Your task to perform on an android device: Clear the cart on target. Add asus rog to the cart on target Image 0: 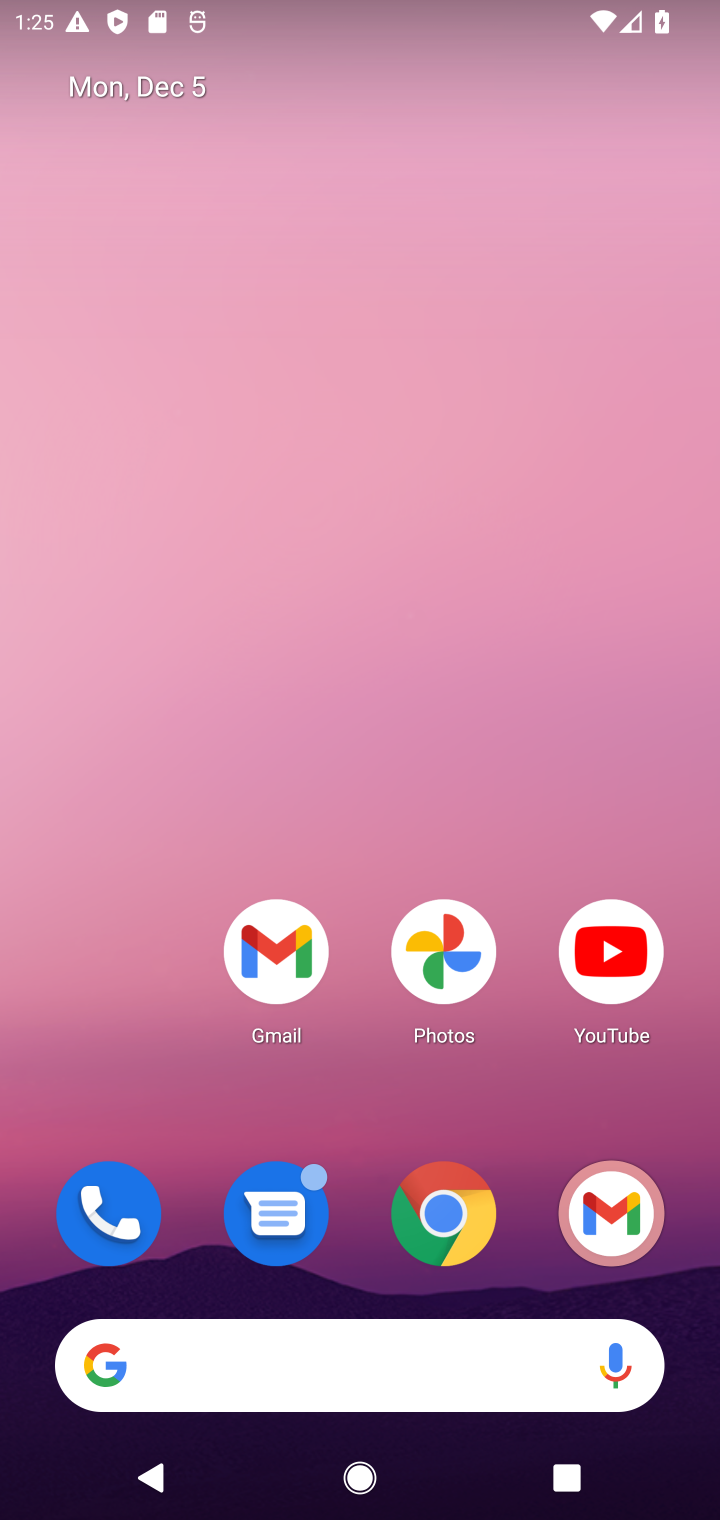
Step 0: click (479, 1234)
Your task to perform on an android device: Clear the cart on target. Add asus rog to the cart on target Image 1: 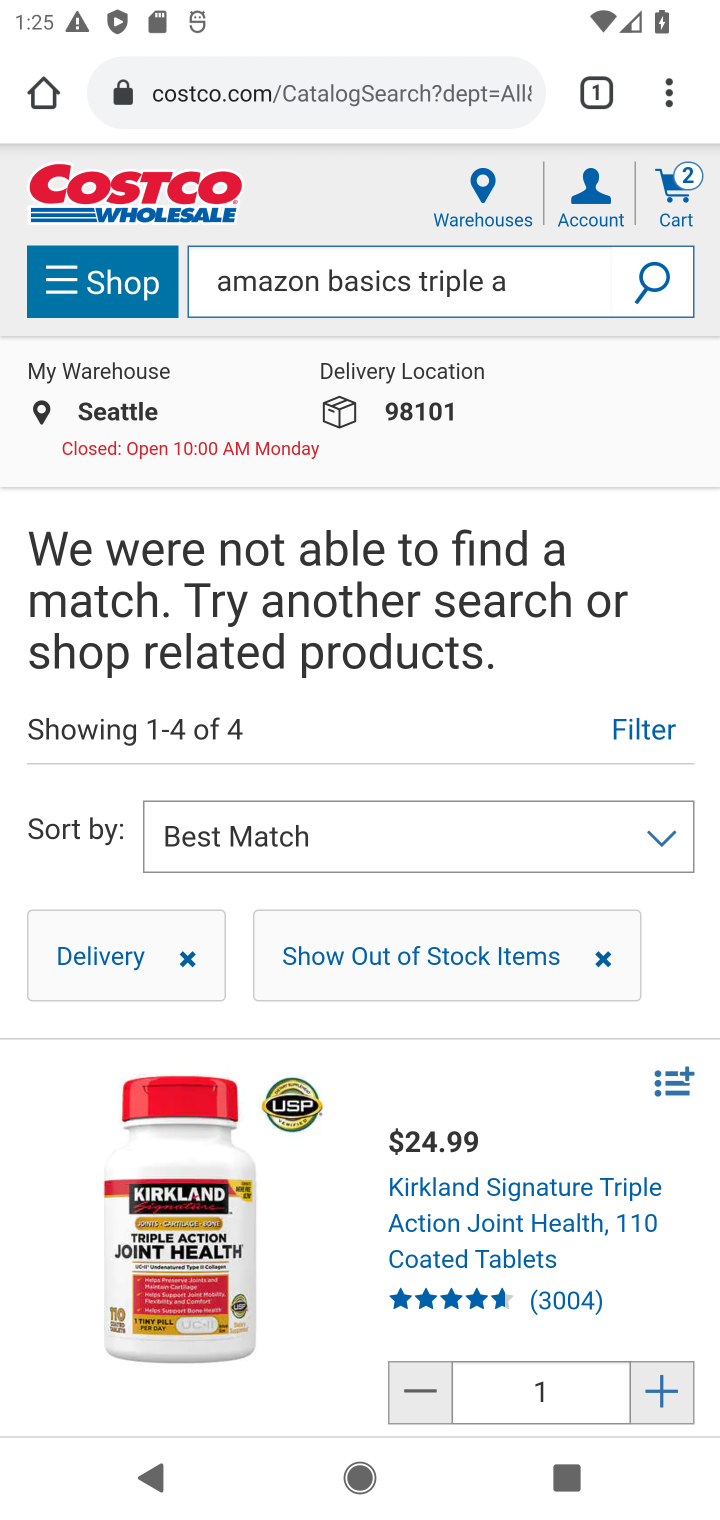
Step 1: click (324, 99)
Your task to perform on an android device: Clear the cart on target. Add asus rog to the cart on target Image 2: 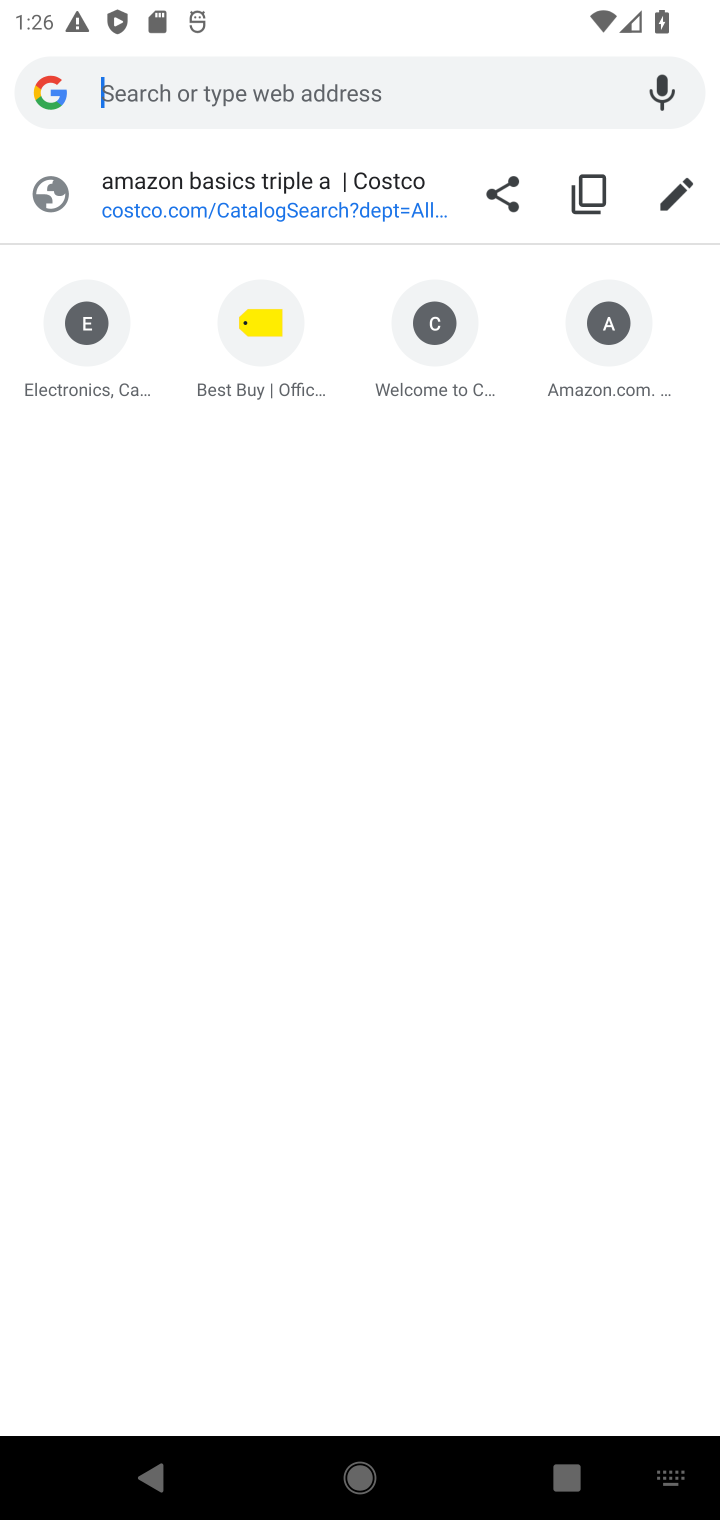
Step 2: type "target.com"
Your task to perform on an android device: Clear the cart on target. Add asus rog to the cart on target Image 3: 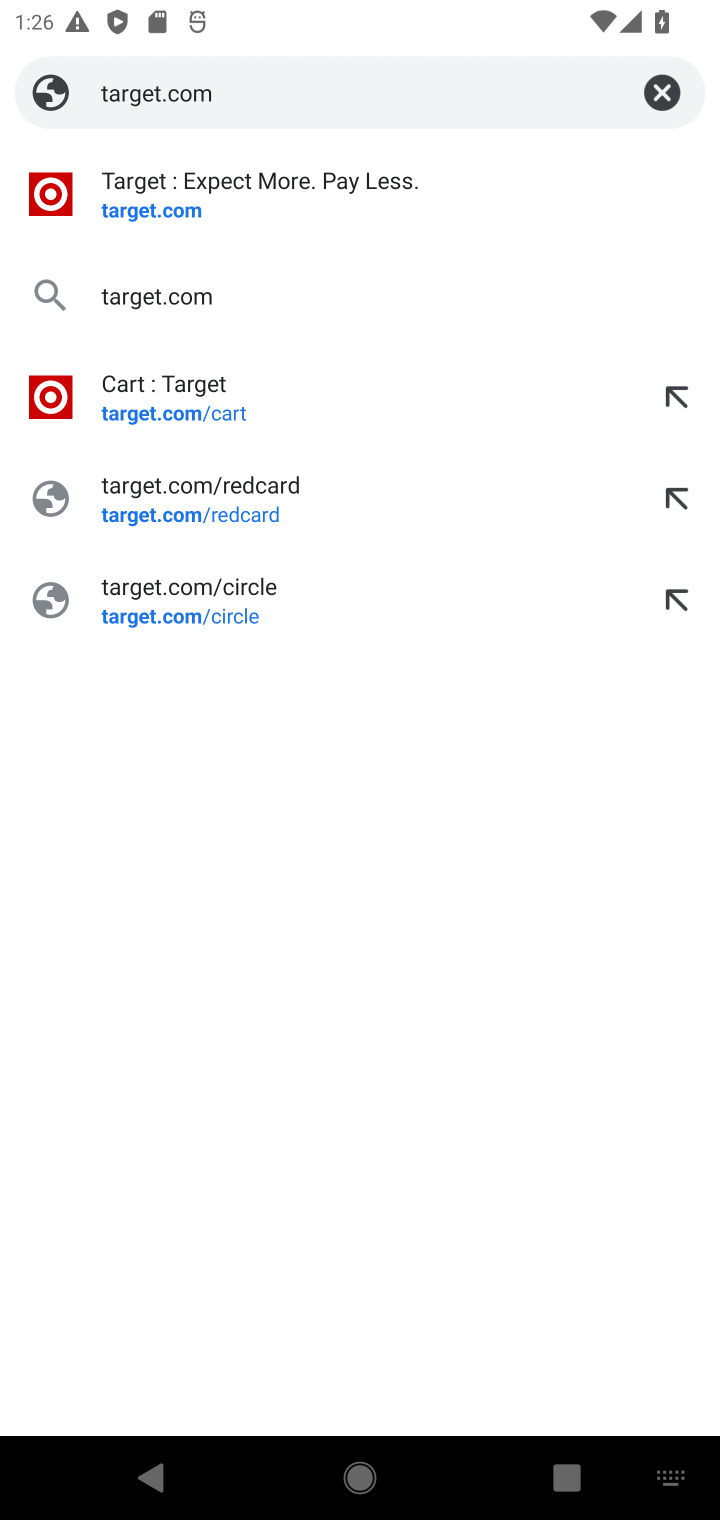
Step 3: click (161, 224)
Your task to perform on an android device: Clear the cart on target. Add asus rog to the cart on target Image 4: 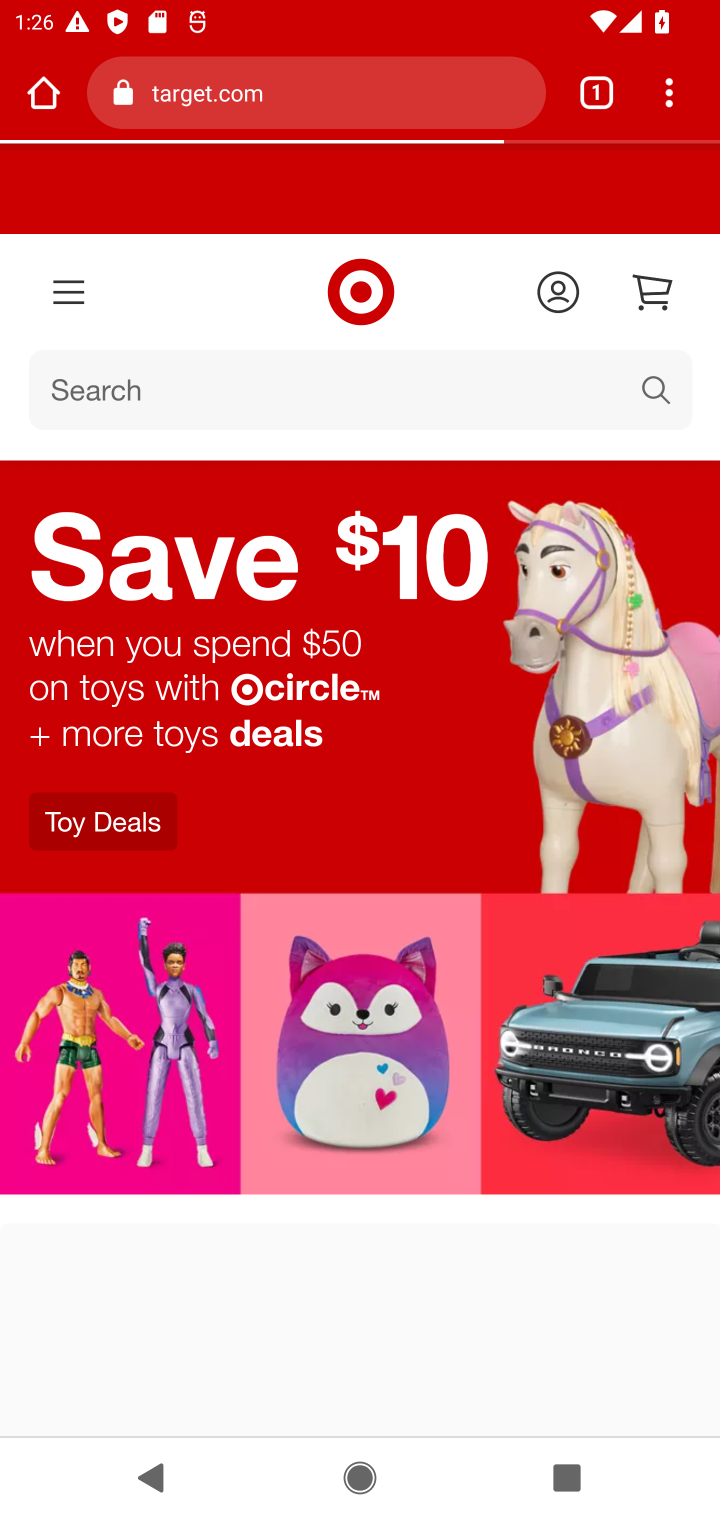
Step 4: click (661, 309)
Your task to perform on an android device: Clear the cart on target. Add asus rog to the cart on target Image 5: 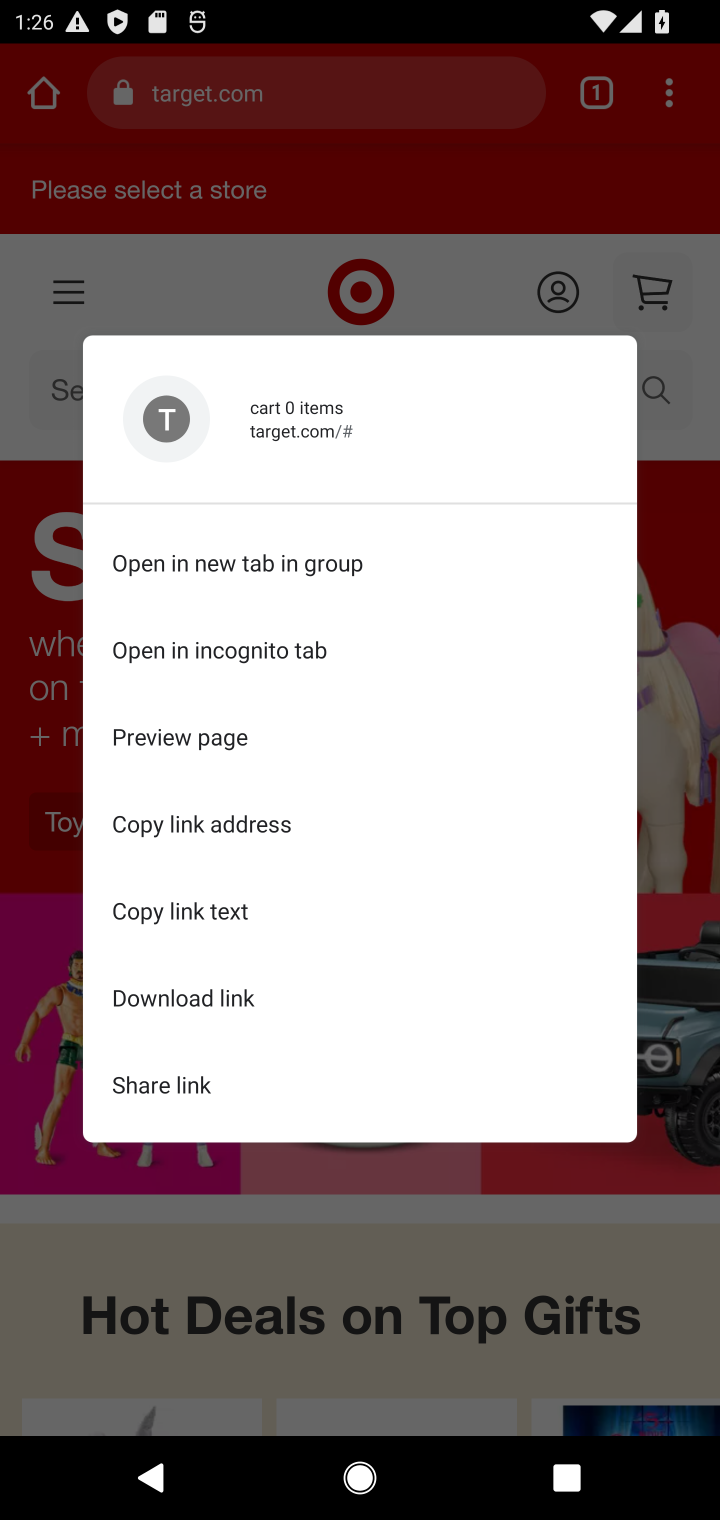
Step 5: click (667, 319)
Your task to perform on an android device: Clear the cart on target. Add asus rog to the cart on target Image 6: 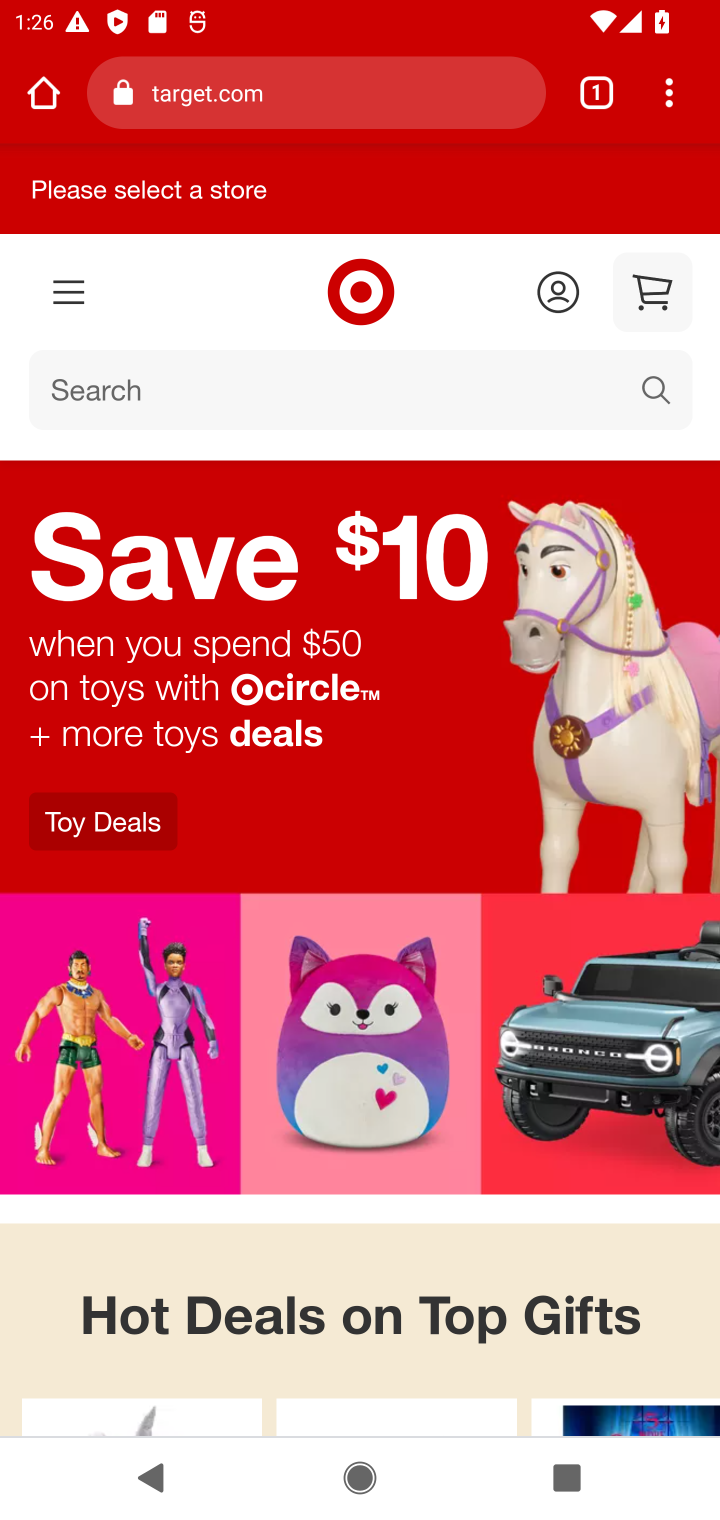
Step 6: click (651, 297)
Your task to perform on an android device: Clear the cart on target. Add asus rog to the cart on target Image 7: 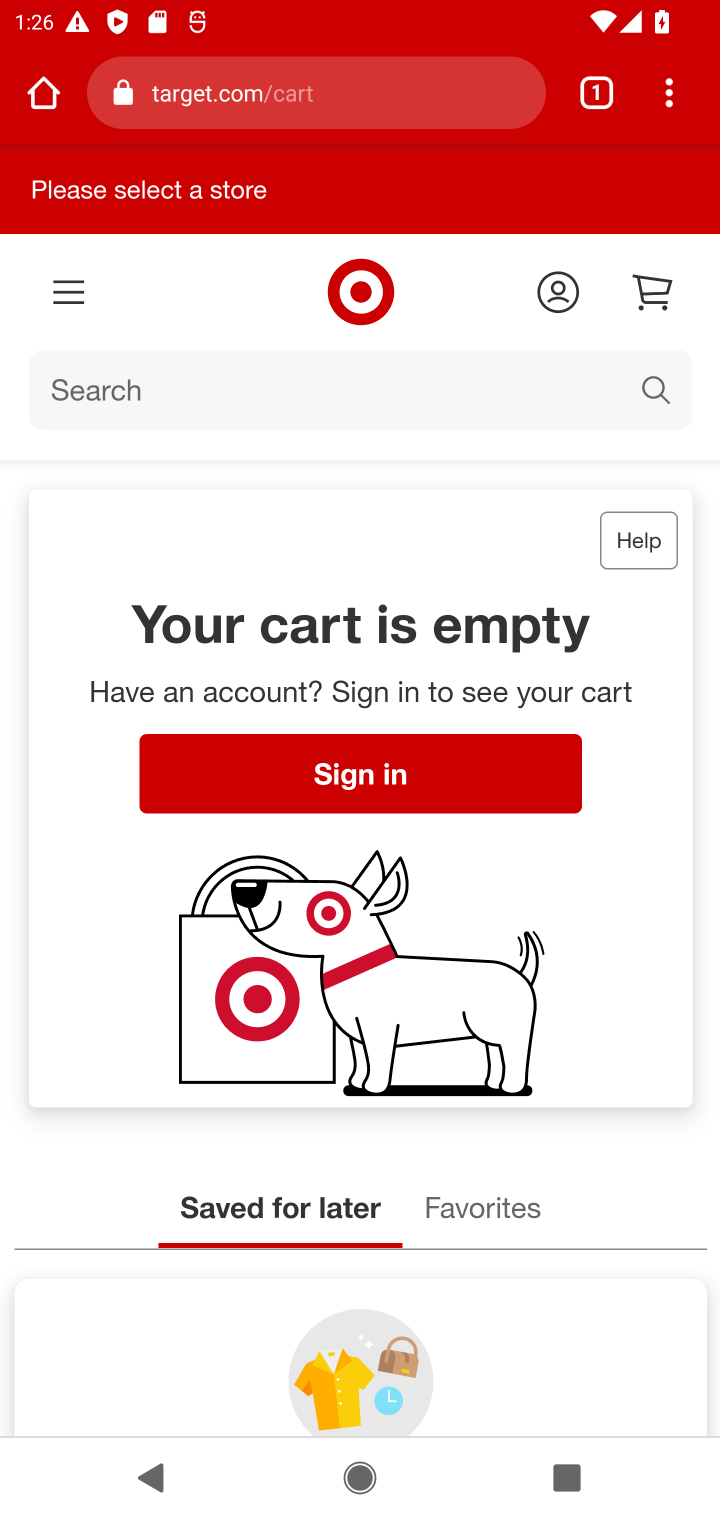
Step 7: click (58, 389)
Your task to perform on an android device: Clear the cart on target. Add asus rog to the cart on target Image 8: 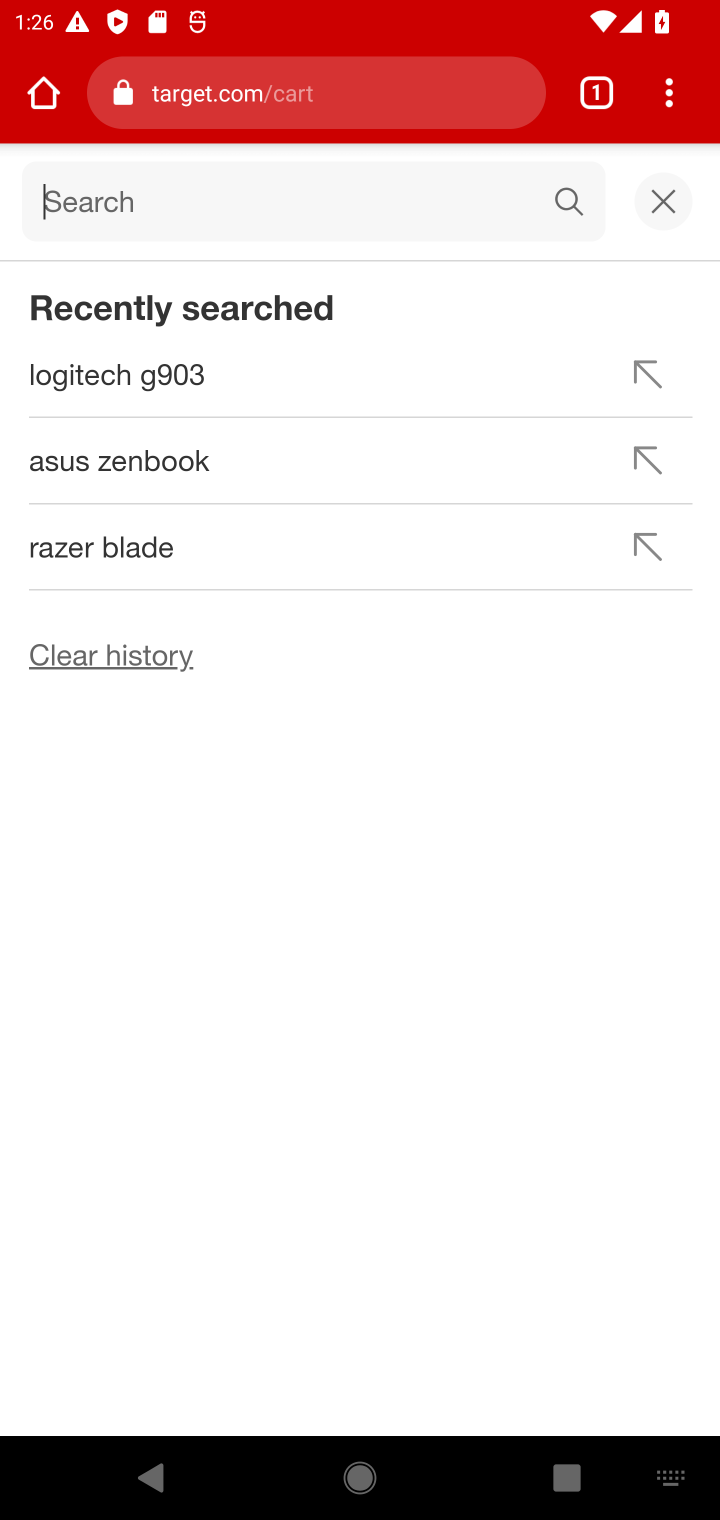
Step 8: type "asus rog"
Your task to perform on an android device: Clear the cart on target. Add asus rog to the cart on target Image 9: 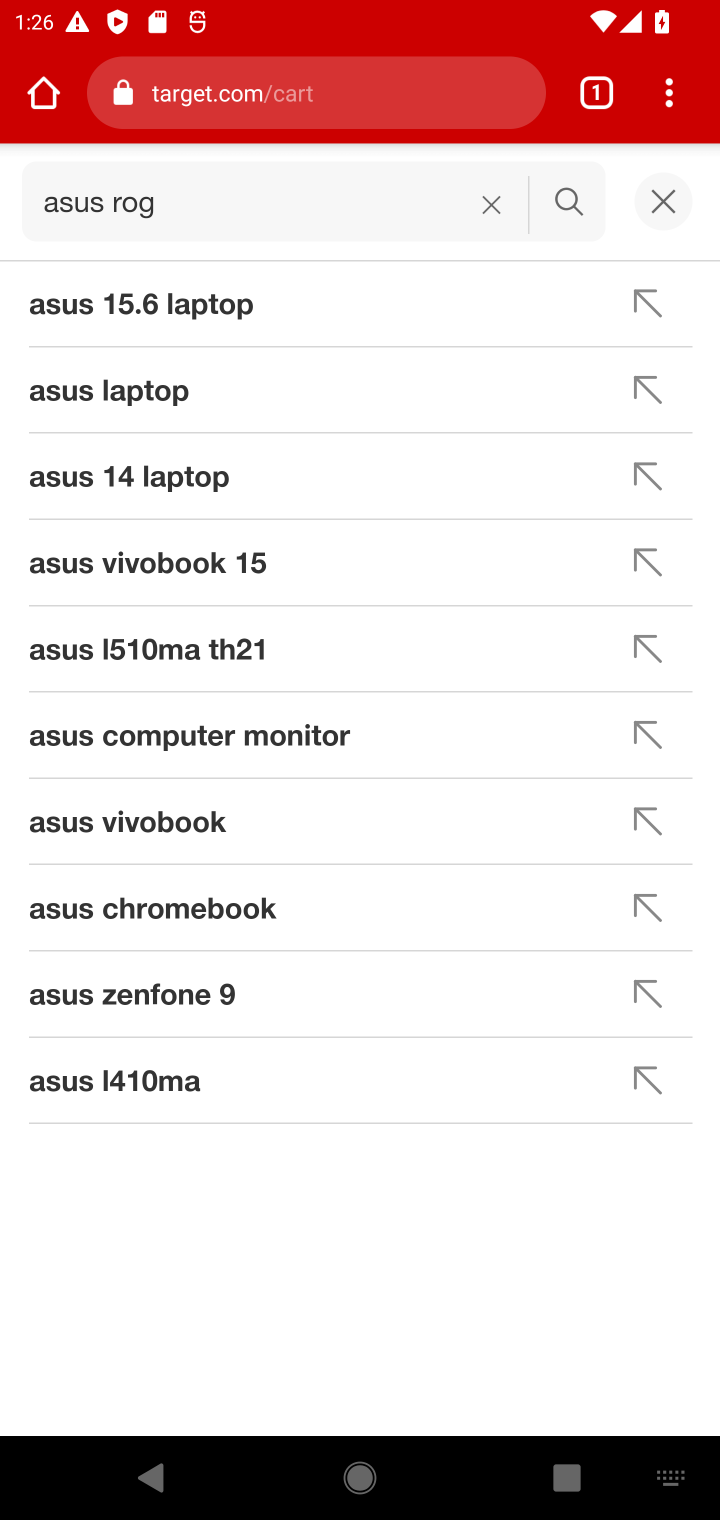
Step 9: click (602, 205)
Your task to perform on an android device: Clear the cart on target. Add asus rog to the cart on target Image 10: 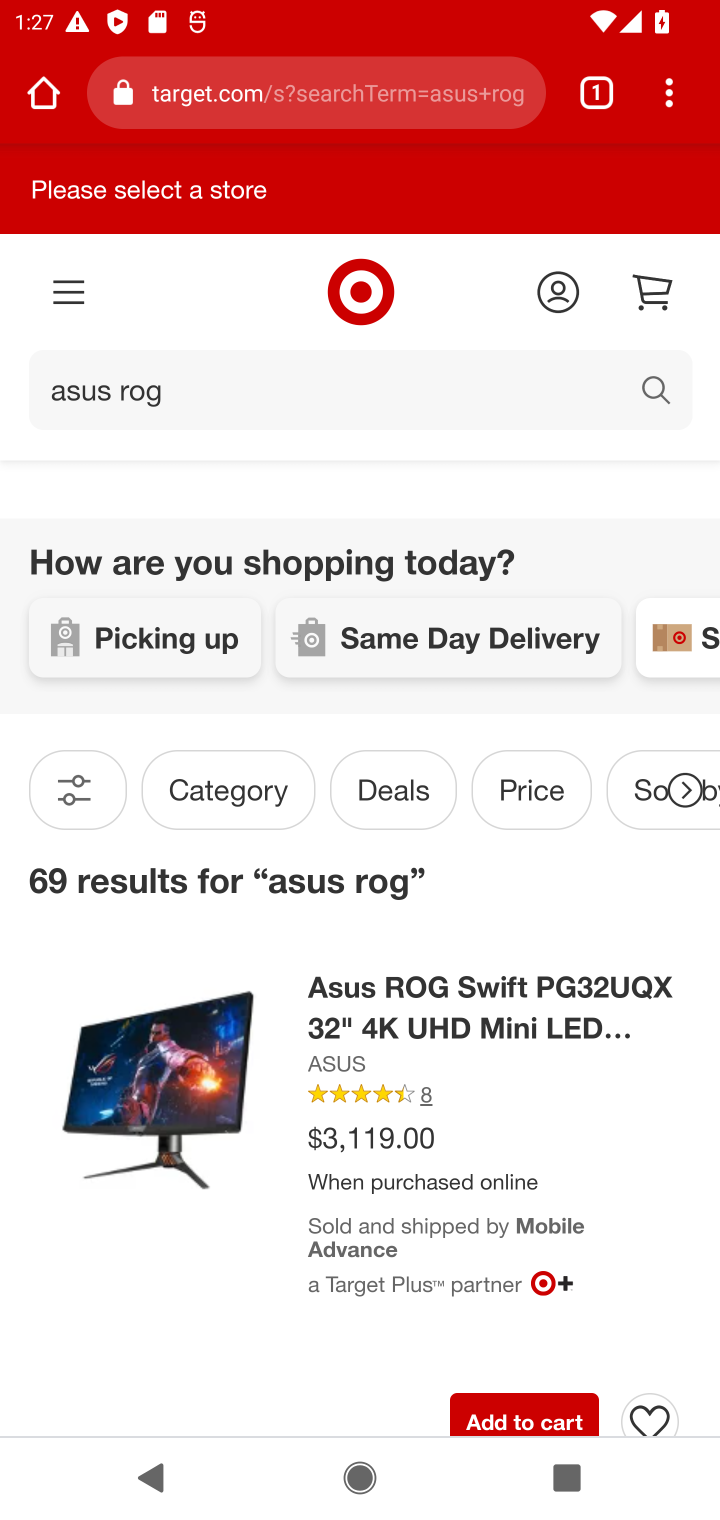
Step 10: drag from (460, 1198) to (453, 887)
Your task to perform on an android device: Clear the cart on target. Add asus rog to the cart on target Image 11: 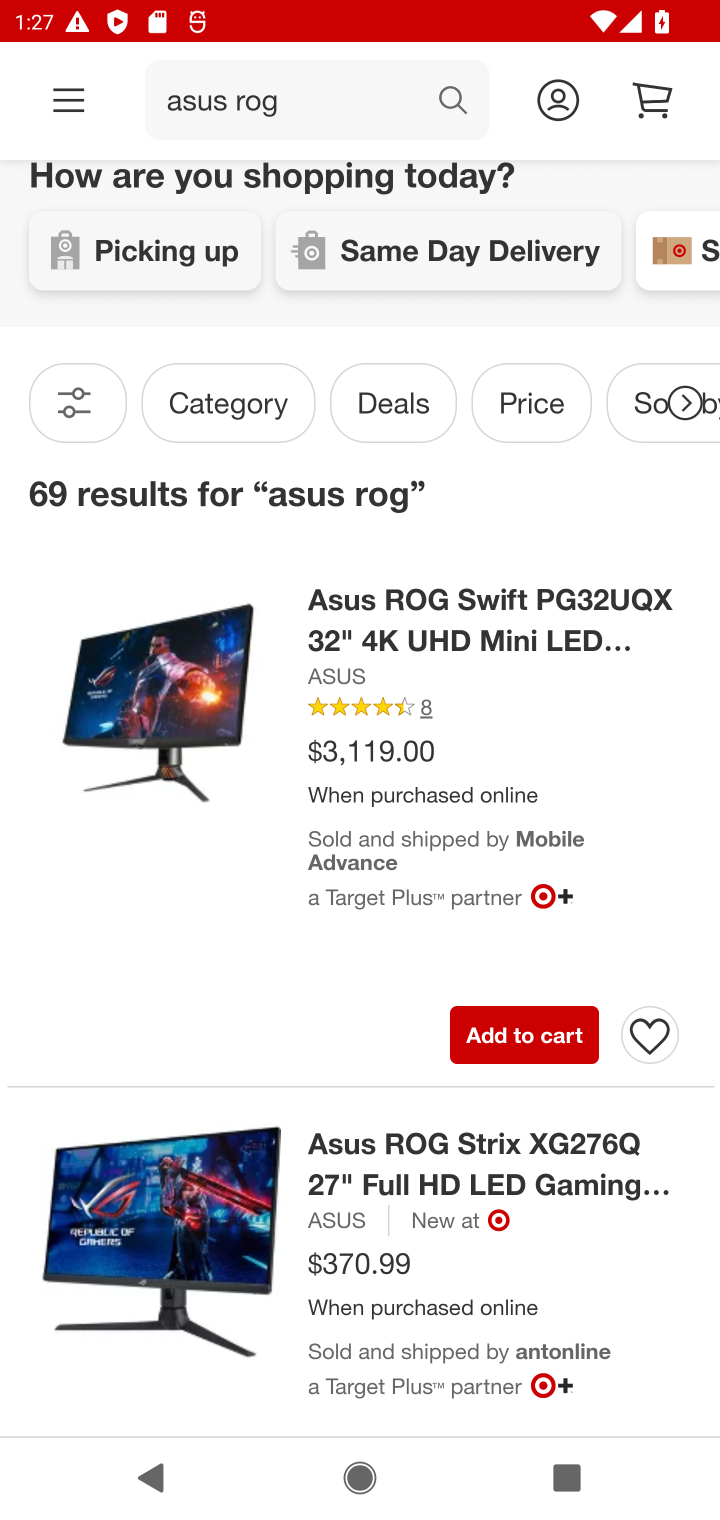
Step 11: click (526, 1033)
Your task to perform on an android device: Clear the cart on target. Add asus rog to the cart on target Image 12: 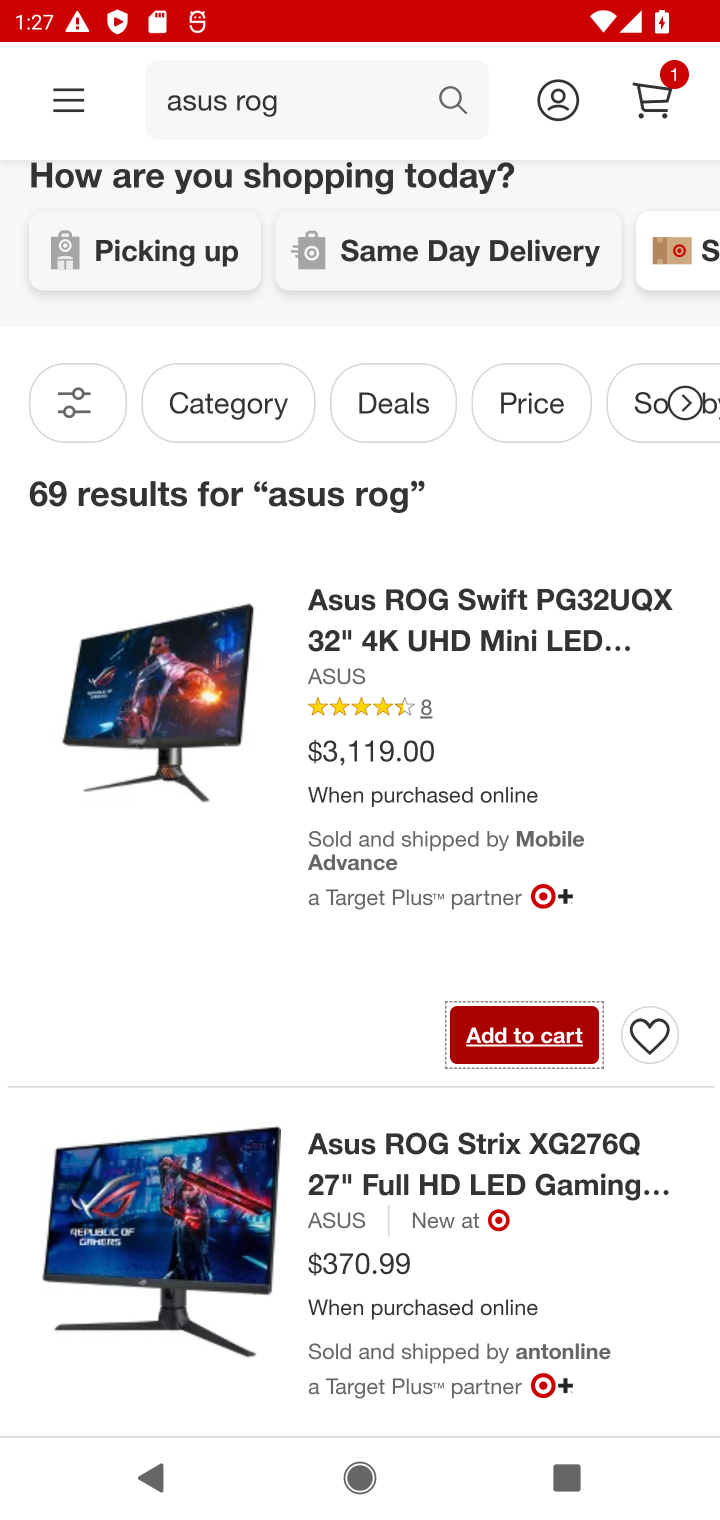
Step 12: task complete